Your task to perform on an android device: find photos in the google photos app Image 0: 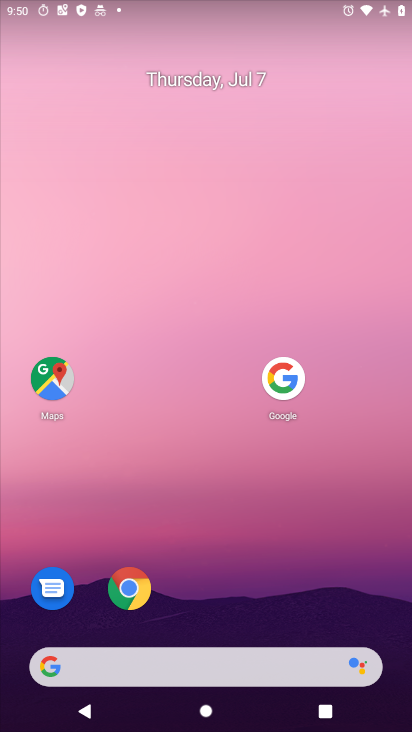
Step 0: drag from (209, 660) to (294, 222)
Your task to perform on an android device: find photos in the google photos app Image 1: 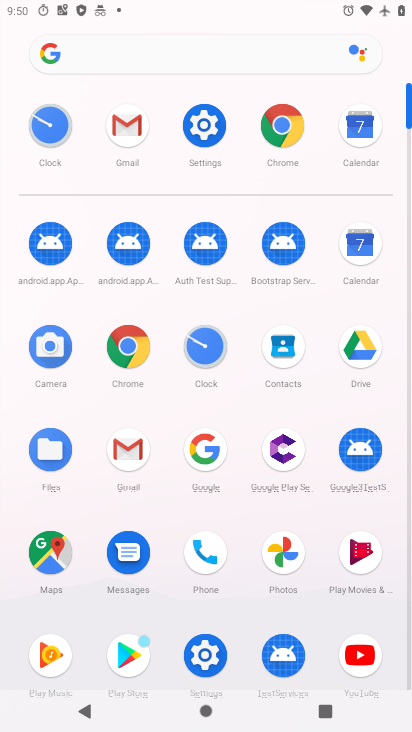
Step 1: click (280, 564)
Your task to perform on an android device: find photos in the google photos app Image 2: 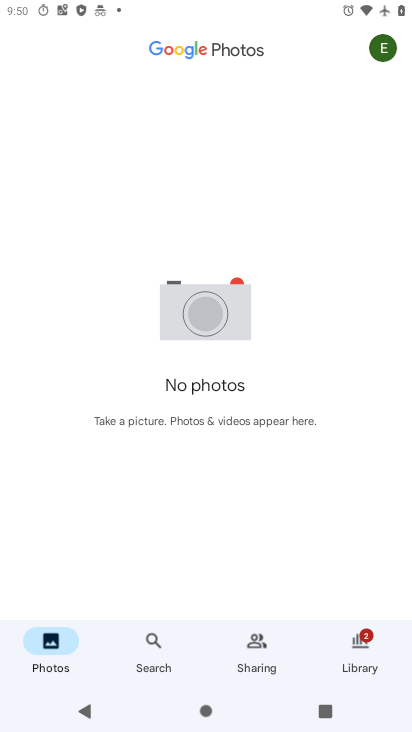
Step 2: task complete